Your task to perform on an android device: change the clock display to digital Image 0: 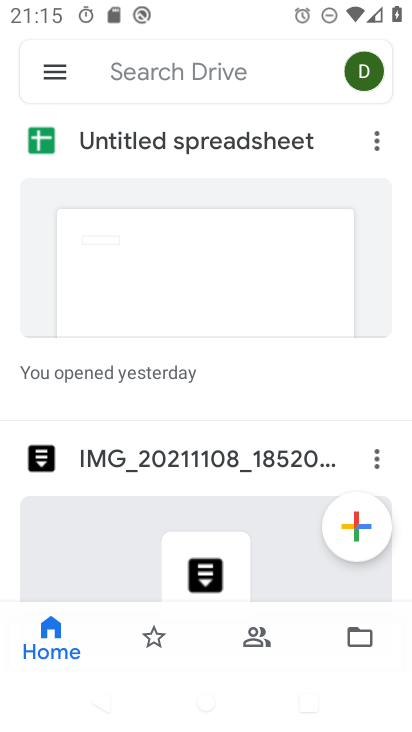
Step 0: press home button
Your task to perform on an android device: change the clock display to digital Image 1: 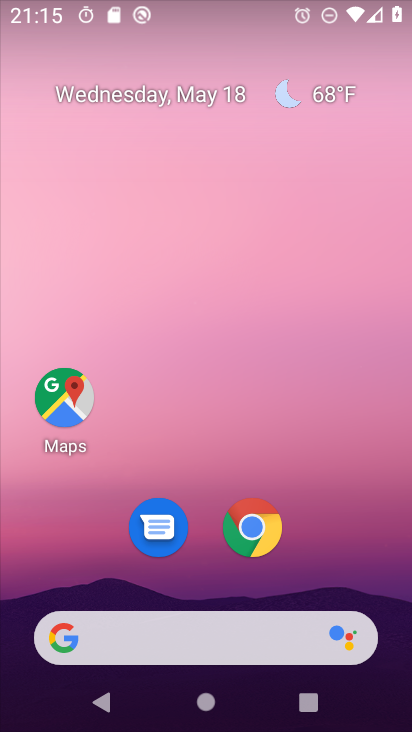
Step 1: drag from (400, 654) to (370, 211)
Your task to perform on an android device: change the clock display to digital Image 2: 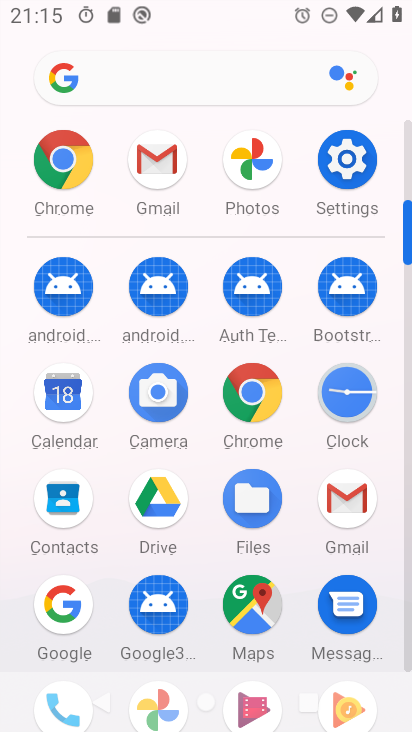
Step 2: click (334, 398)
Your task to perform on an android device: change the clock display to digital Image 3: 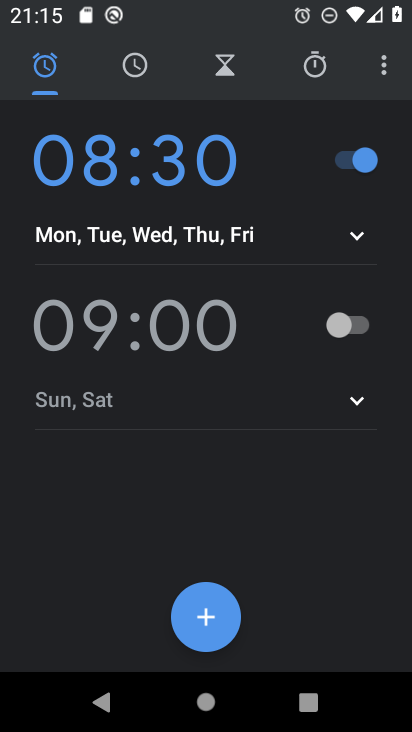
Step 3: click (381, 67)
Your task to perform on an android device: change the clock display to digital Image 4: 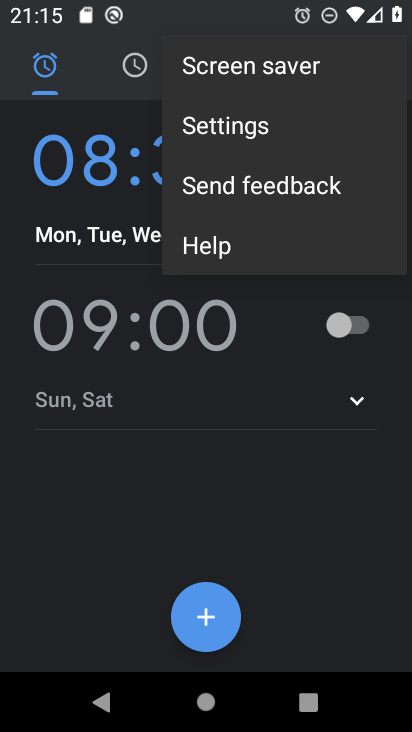
Step 4: click (211, 131)
Your task to perform on an android device: change the clock display to digital Image 5: 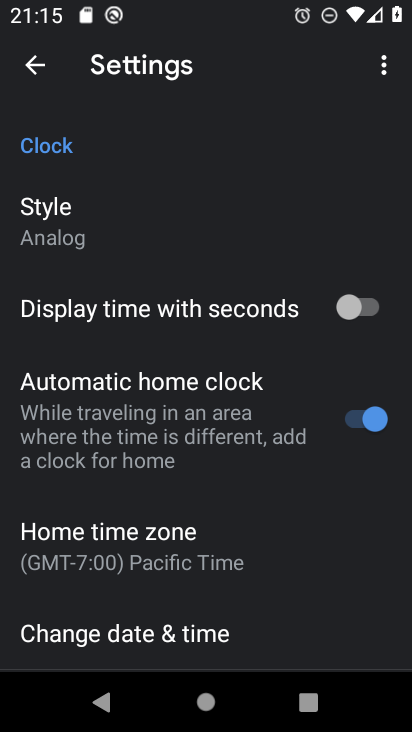
Step 5: click (62, 230)
Your task to perform on an android device: change the clock display to digital Image 6: 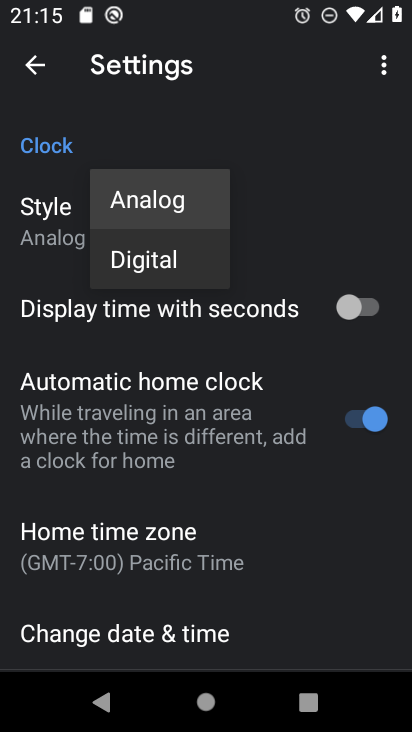
Step 6: click (152, 255)
Your task to perform on an android device: change the clock display to digital Image 7: 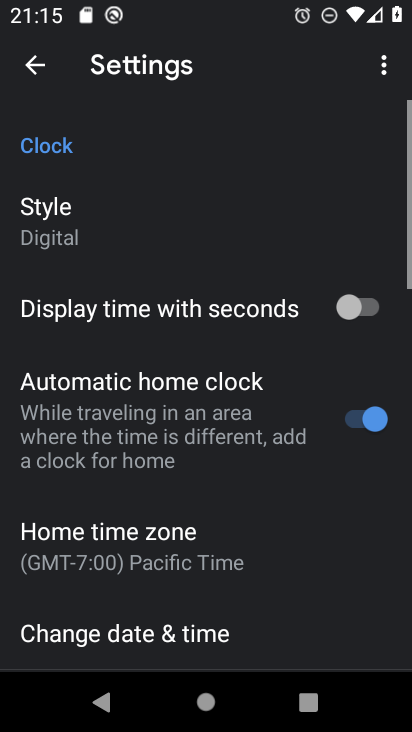
Step 7: task complete